Your task to perform on an android device: turn on improve location accuracy Image 0: 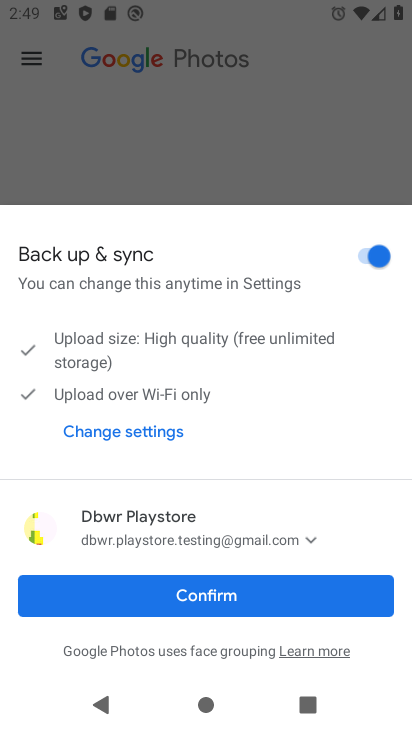
Step 0: click (332, 605)
Your task to perform on an android device: turn on improve location accuracy Image 1: 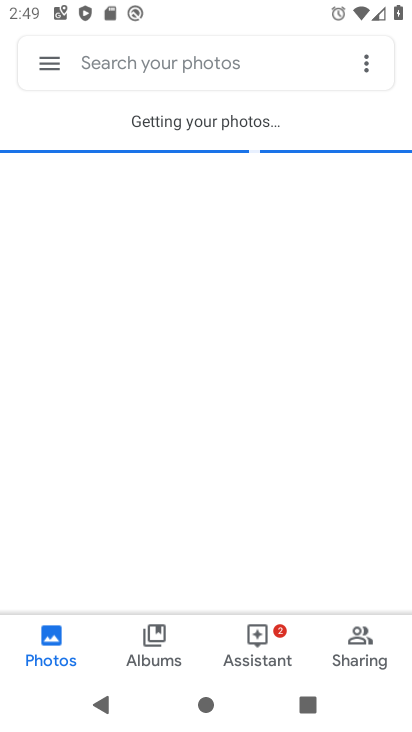
Step 1: click (148, 62)
Your task to perform on an android device: turn on improve location accuracy Image 2: 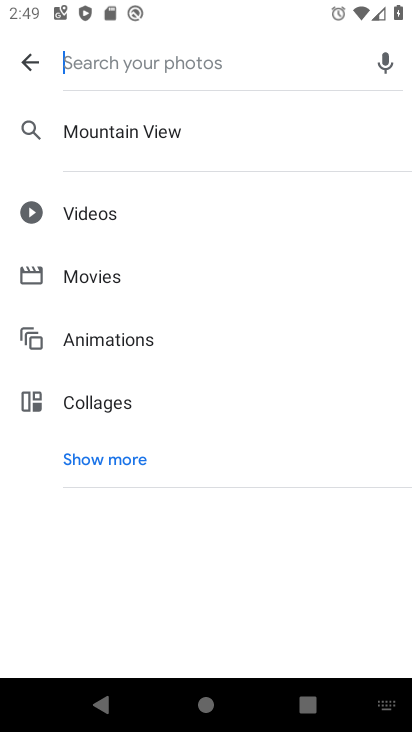
Step 2: click (41, 58)
Your task to perform on an android device: turn on improve location accuracy Image 3: 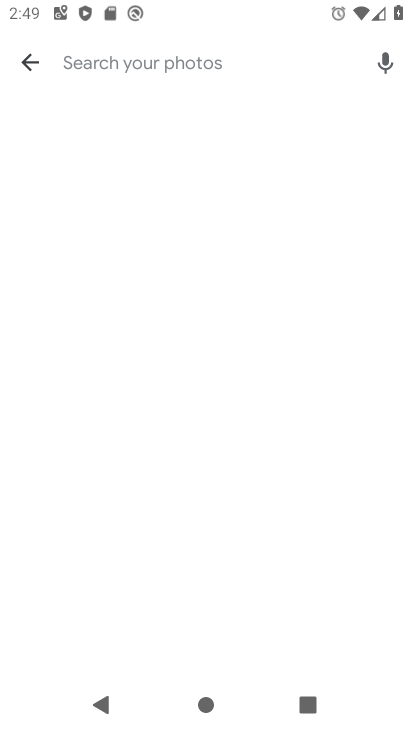
Step 3: press home button
Your task to perform on an android device: turn on improve location accuracy Image 4: 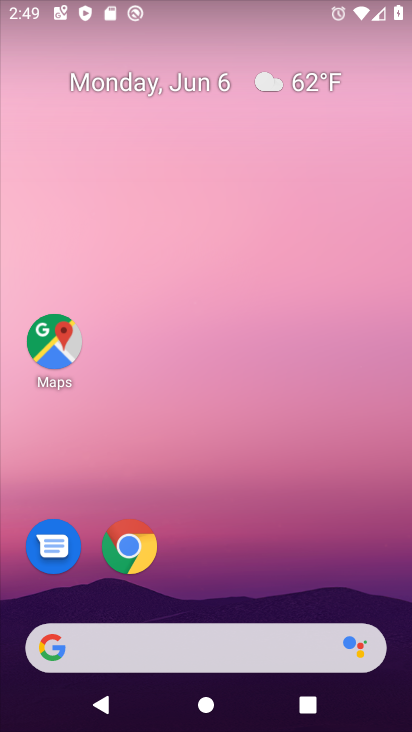
Step 4: drag from (237, 589) to (236, 170)
Your task to perform on an android device: turn on improve location accuracy Image 5: 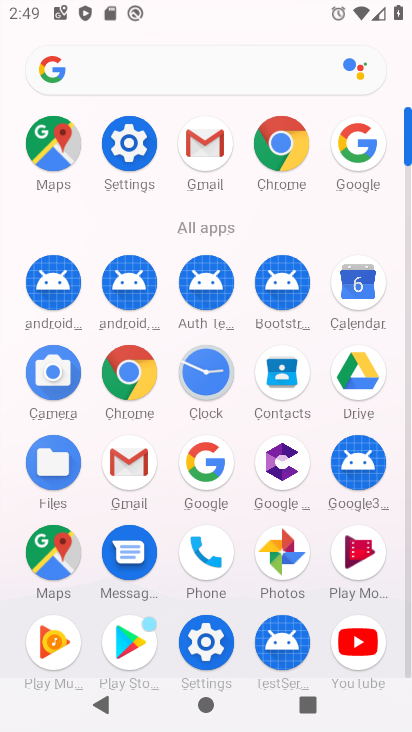
Step 5: click (137, 141)
Your task to perform on an android device: turn on improve location accuracy Image 6: 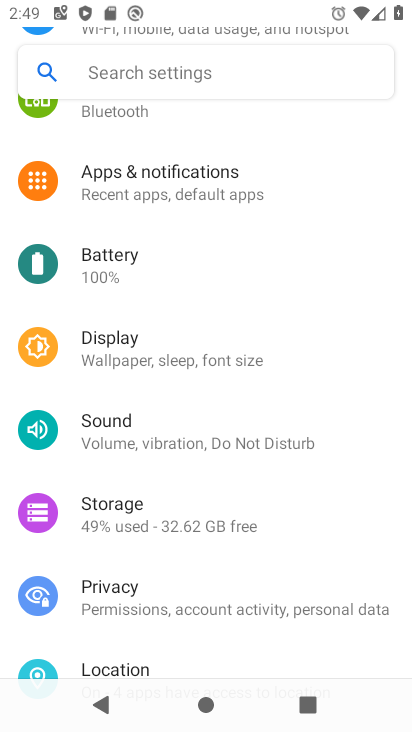
Step 6: drag from (170, 649) to (203, 396)
Your task to perform on an android device: turn on improve location accuracy Image 7: 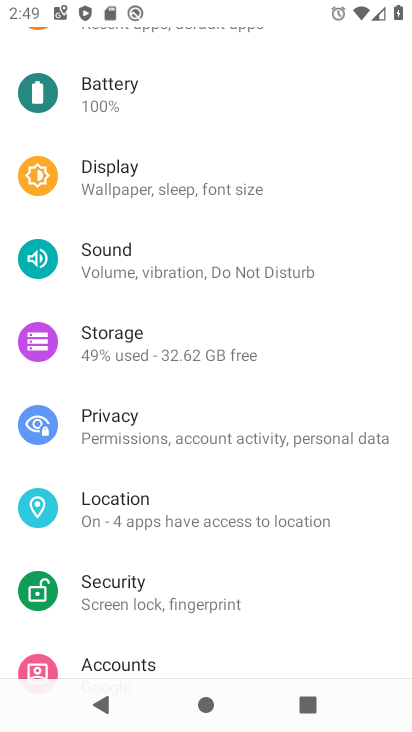
Step 7: click (173, 509)
Your task to perform on an android device: turn on improve location accuracy Image 8: 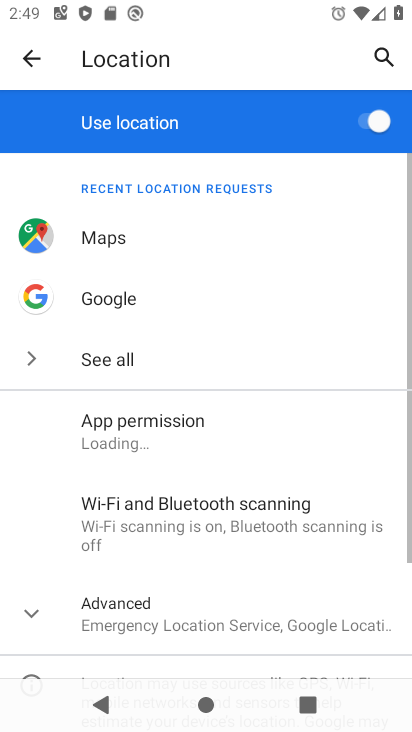
Step 8: drag from (195, 576) to (226, 327)
Your task to perform on an android device: turn on improve location accuracy Image 9: 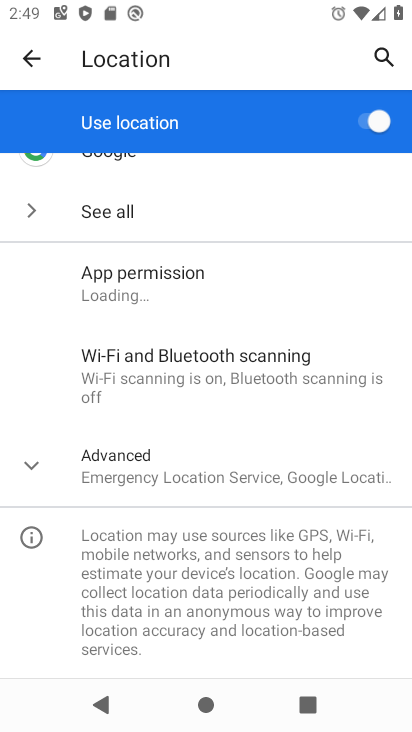
Step 9: click (171, 466)
Your task to perform on an android device: turn on improve location accuracy Image 10: 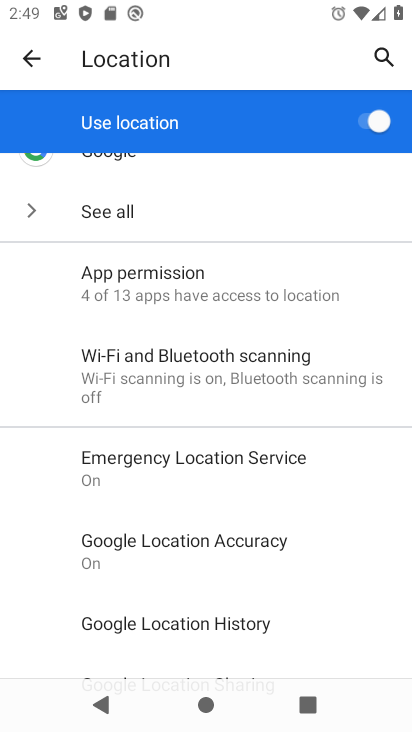
Step 10: click (190, 559)
Your task to perform on an android device: turn on improve location accuracy Image 11: 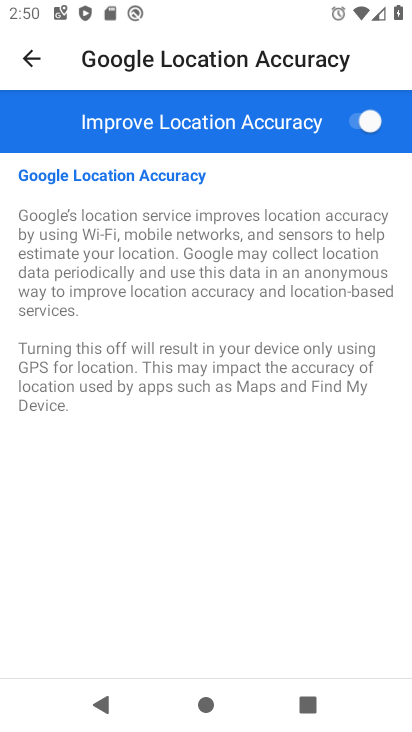
Step 11: task complete